Your task to perform on an android device: choose inbox layout in the gmail app Image 0: 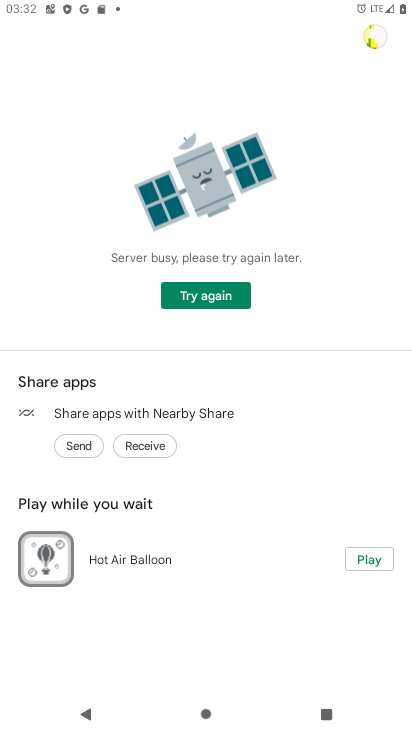
Step 0: press home button
Your task to perform on an android device: choose inbox layout in the gmail app Image 1: 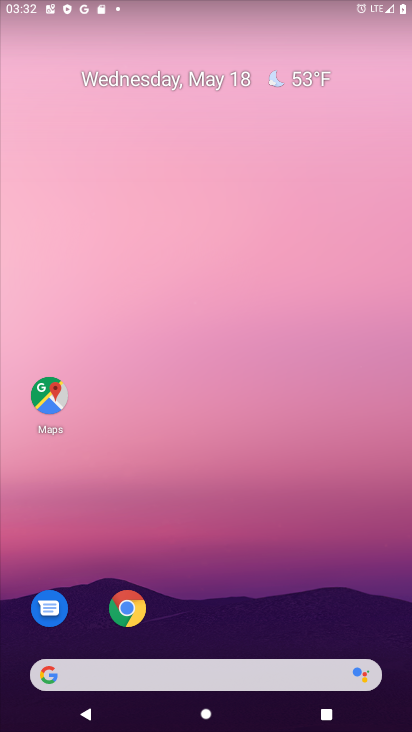
Step 1: drag from (331, 633) to (338, 8)
Your task to perform on an android device: choose inbox layout in the gmail app Image 2: 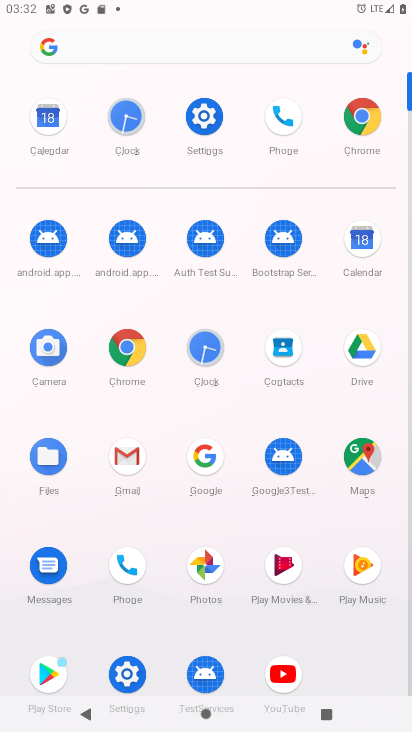
Step 2: click (134, 458)
Your task to perform on an android device: choose inbox layout in the gmail app Image 3: 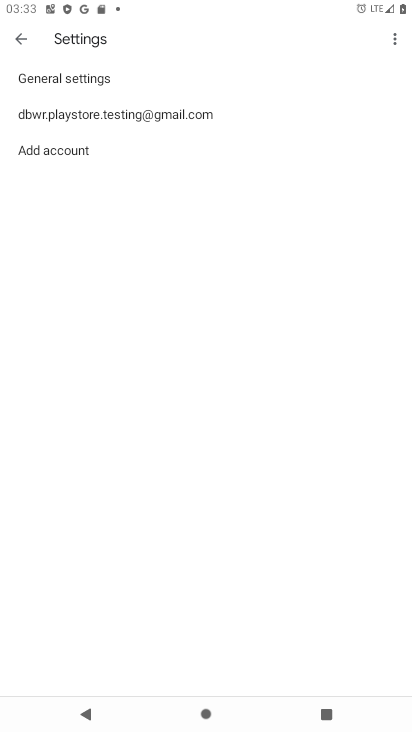
Step 3: click (69, 110)
Your task to perform on an android device: choose inbox layout in the gmail app Image 4: 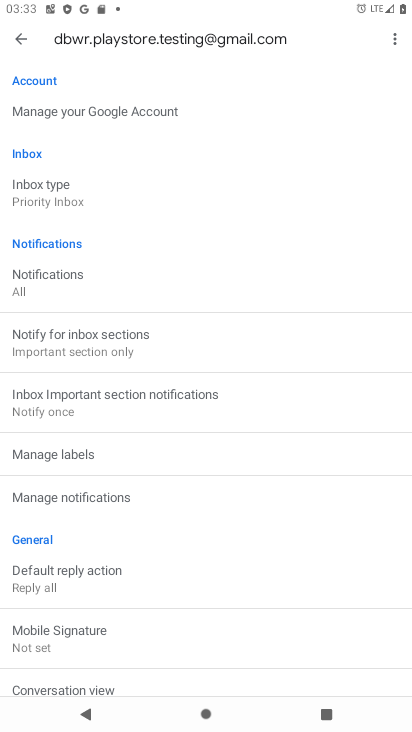
Step 4: click (25, 203)
Your task to perform on an android device: choose inbox layout in the gmail app Image 5: 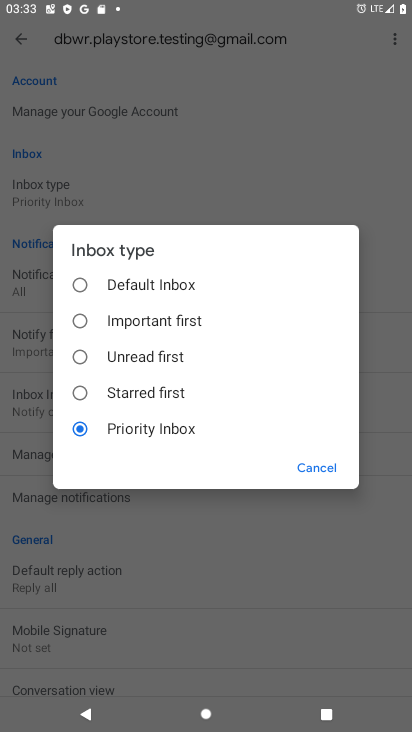
Step 5: click (81, 315)
Your task to perform on an android device: choose inbox layout in the gmail app Image 6: 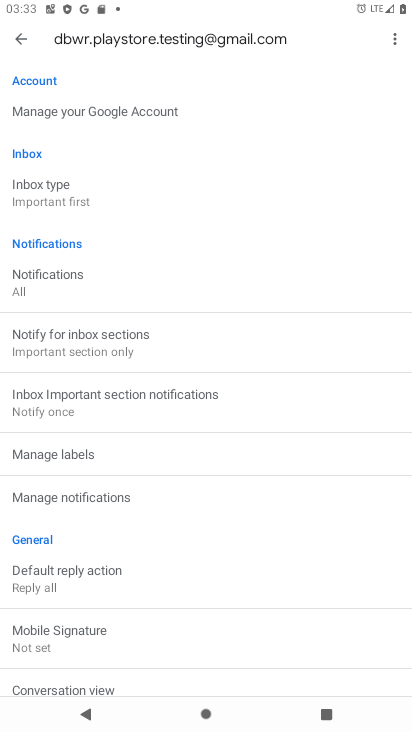
Step 6: task complete